Your task to perform on an android device: Check the news Image 0: 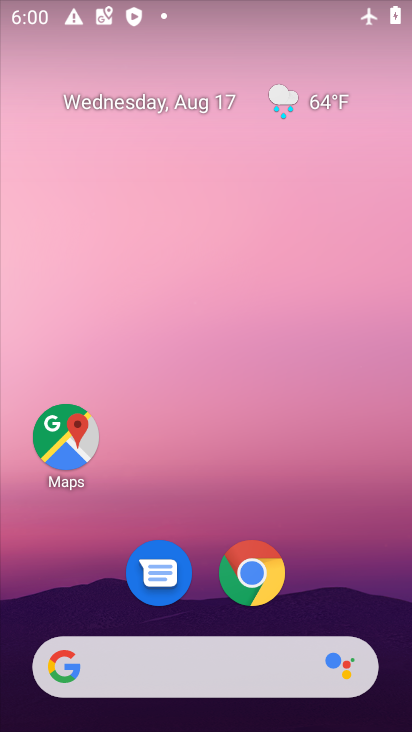
Step 0: drag from (358, 480) to (287, 60)
Your task to perform on an android device: Check the news Image 1: 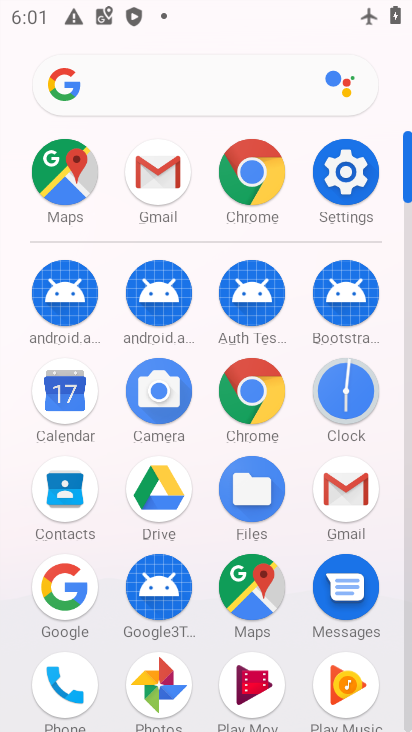
Step 1: click (237, 144)
Your task to perform on an android device: Check the news Image 2: 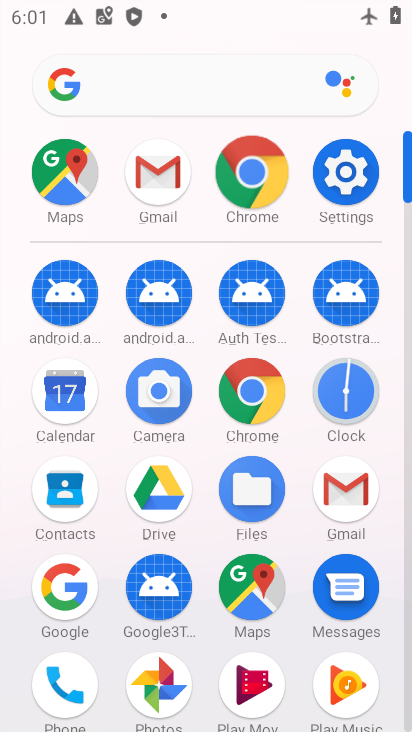
Step 2: click (238, 158)
Your task to perform on an android device: Check the news Image 3: 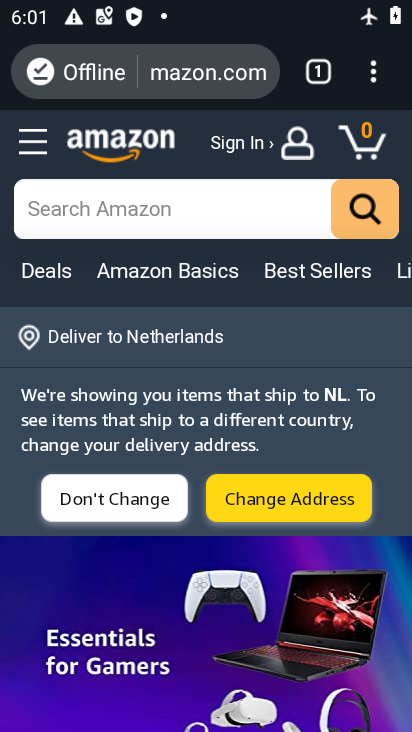
Step 3: task complete